Your task to perform on an android device: check out phone information Image 0: 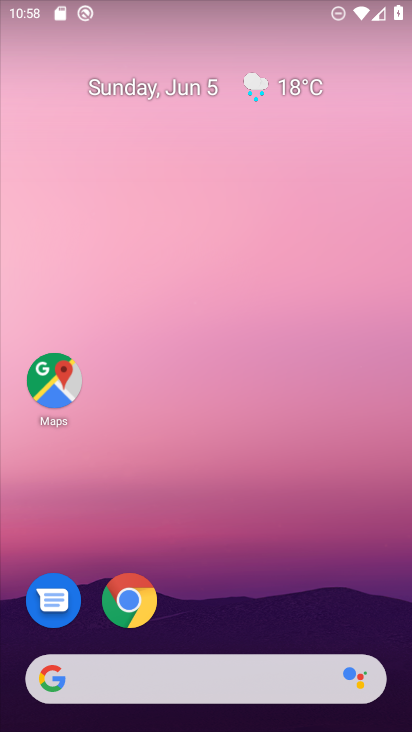
Step 0: drag from (274, 606) to (257, 123)
Your task to perform on an android device: check out phone information Image 1: 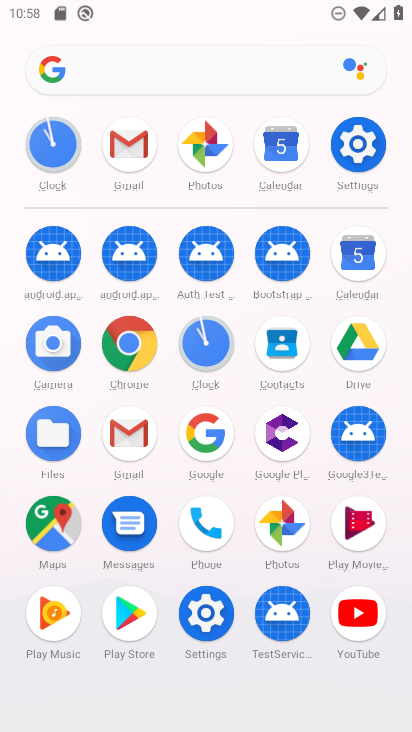
Step 1: click (354, 149)
Your task to perform on an android device: check out phone information Image 2: 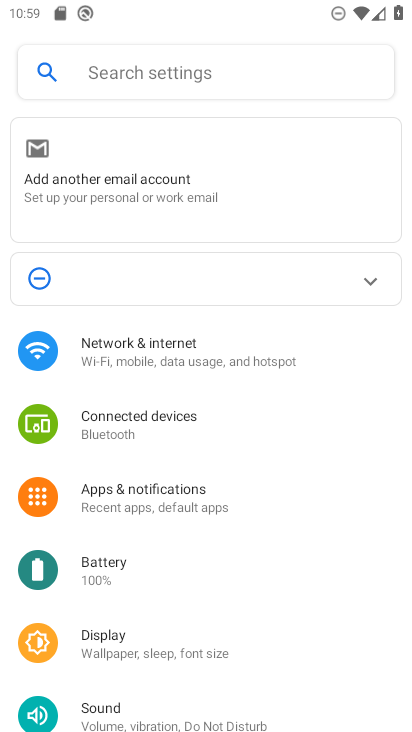
Step 2: drag from (200, 642) to (266, 173)
Your task to perform on an android device: check out phone information Image 3: 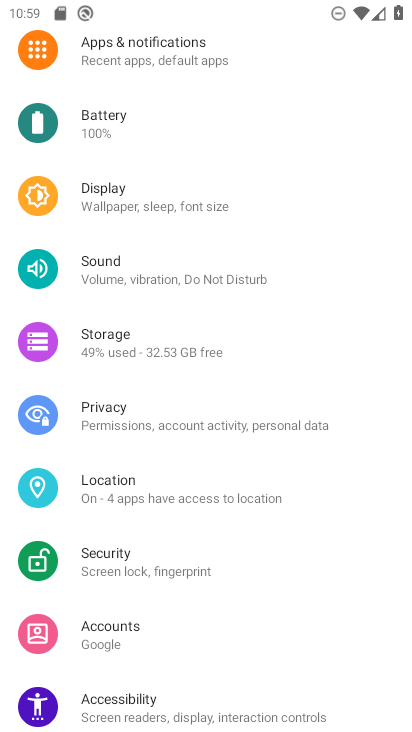
Step 3: drag from (186, 677) to (264, 195)
Your task to perform on an android device: check out phone information Image 4: 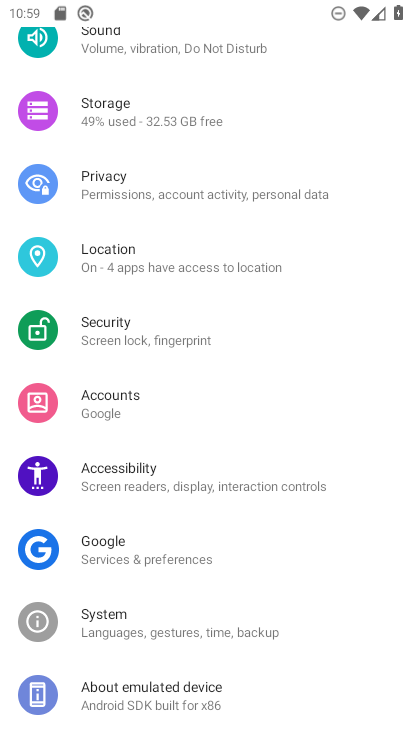
Step 4: drag from (189, 619) to (304, 111)
Your task to perform on an android device: check out phone information Image 5: 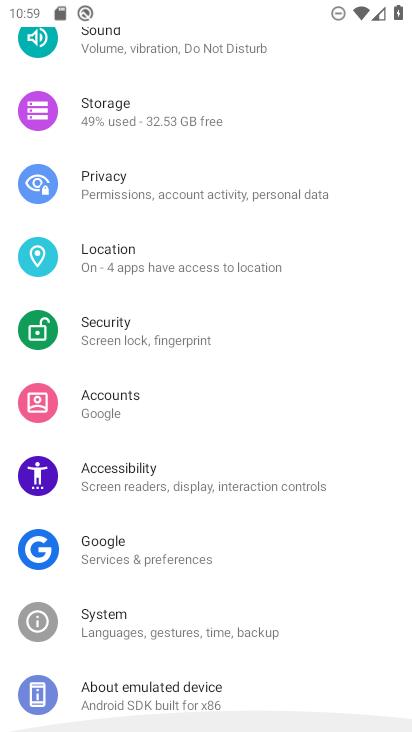
Step 5: click (192, 689)
Your task to perform on an android device: check out phone information Image 6: 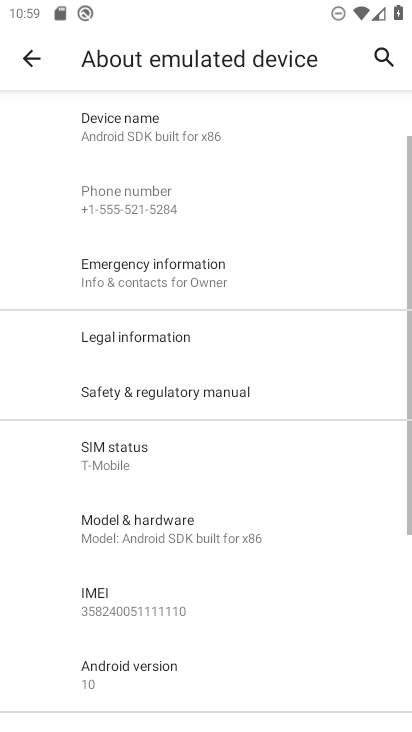
Step 6: click (181, 272)
Your task to perform on an android device: check out phone information Image 7: 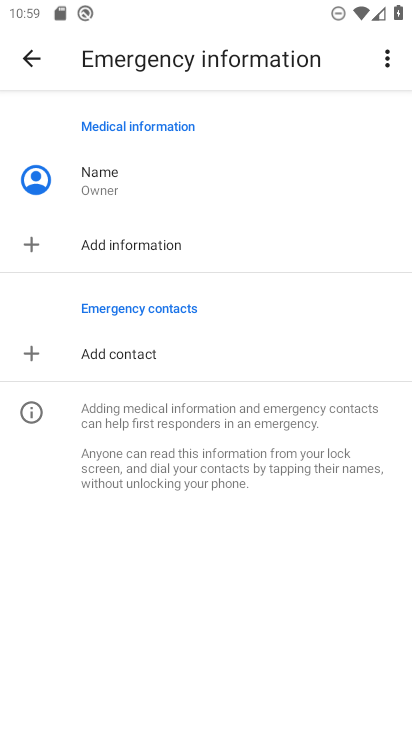
Step 7: click (28, 67)
Your task to perform on an android device: check out phone information Image 8: 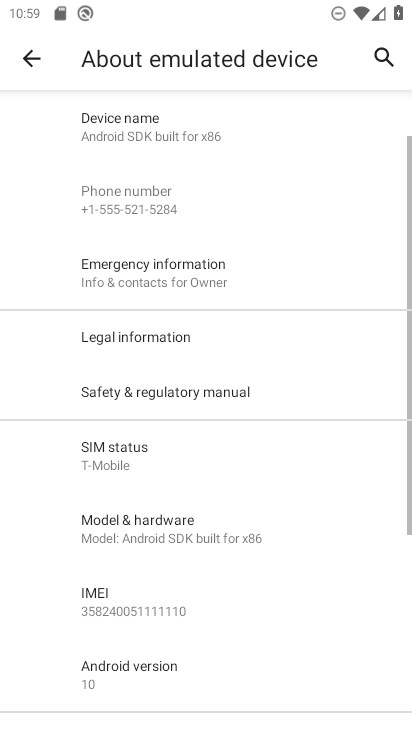
Step 8: task complete